Your task to perform on an android device: set the stopwatch Image 0: 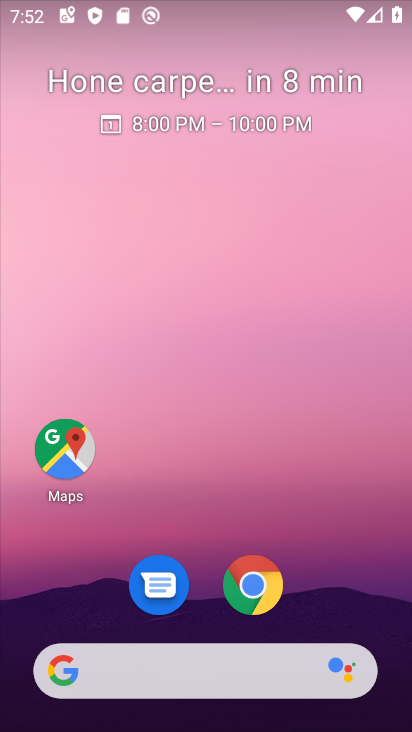
Step 0: drag from (351, 570) to (385, 65)
Your task to perform on an android device: set the stopwatch Image 1: 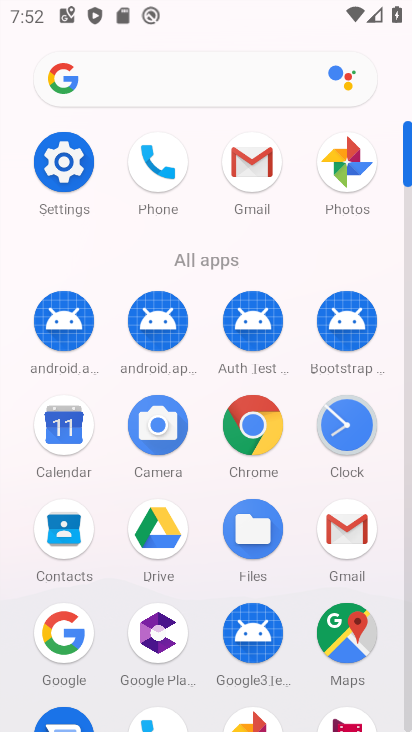
Step 1: click (339, 426)
Your task to perform on an android device: set the stopwatch Image 2: 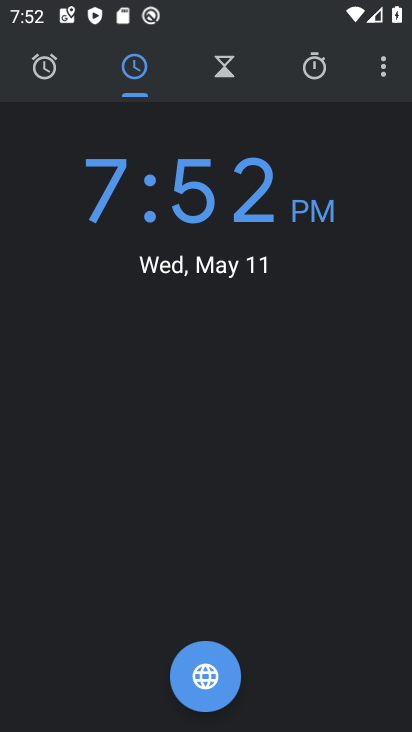
Step 2: click (320, 69)
Your task to perform on an android device: set the stopwatch Image 3: 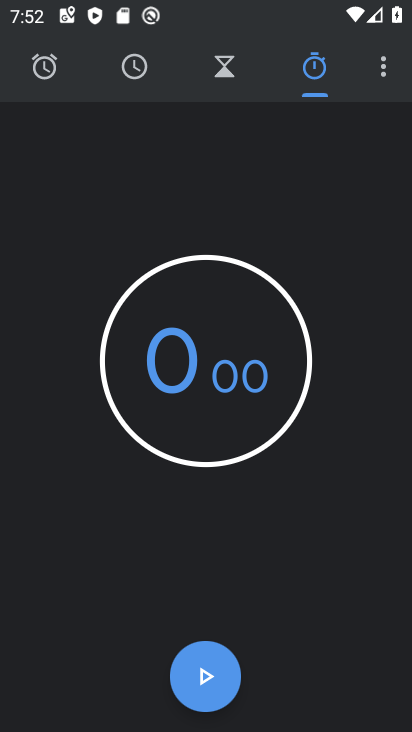
Step 3: task complete